Your task to perform on an android device: open app "Messenger Lite" (install if not already installed) and go to login screen Image 0: 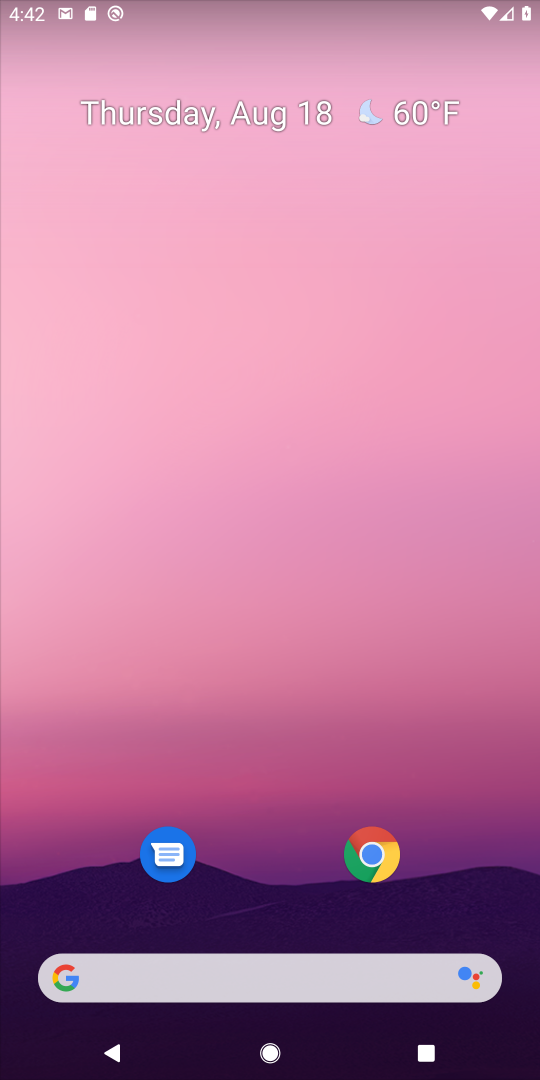
Step 0: click (307, 30)
Your task to perform on an android device: open app "Messenger Lite" (install if not already installed) and go to login screen Image 1: 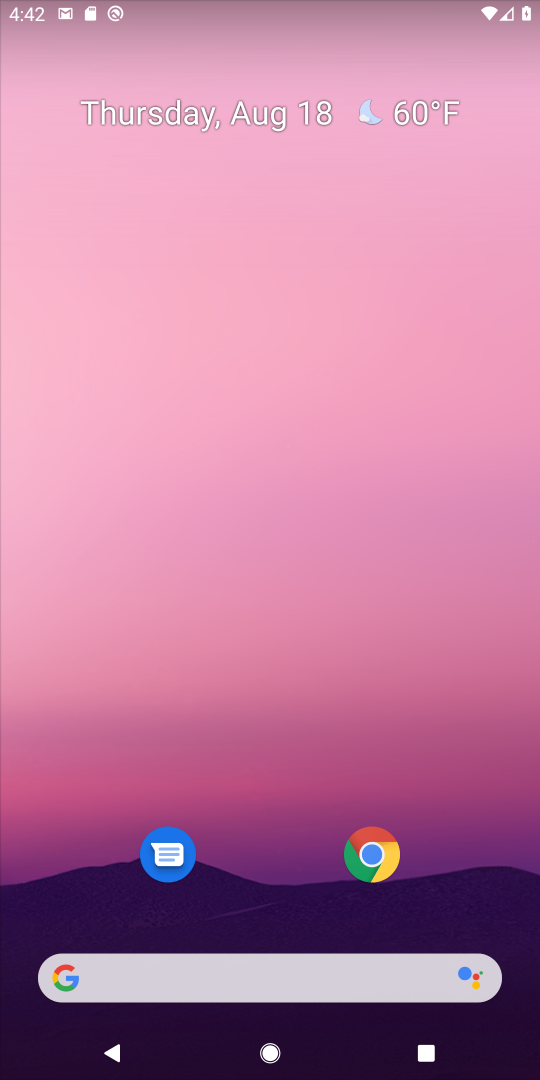
Step 1: drag from (338, 176) to (338, 69)
Your task to perform on an android device: open app "Messenger Lite" (install if not already installed) and go to login screen Image 2: 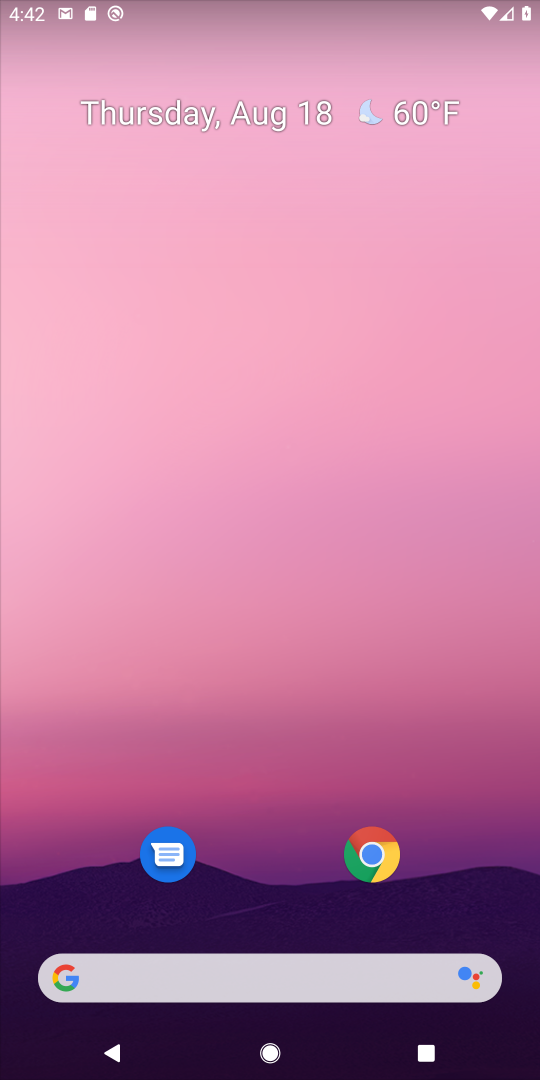
Step 2: drag from (257, 908) to (318, 119)
Your task to perform on an android device: open app "Messenger Lite" (install if not already installed) and go to login screen Image 3: 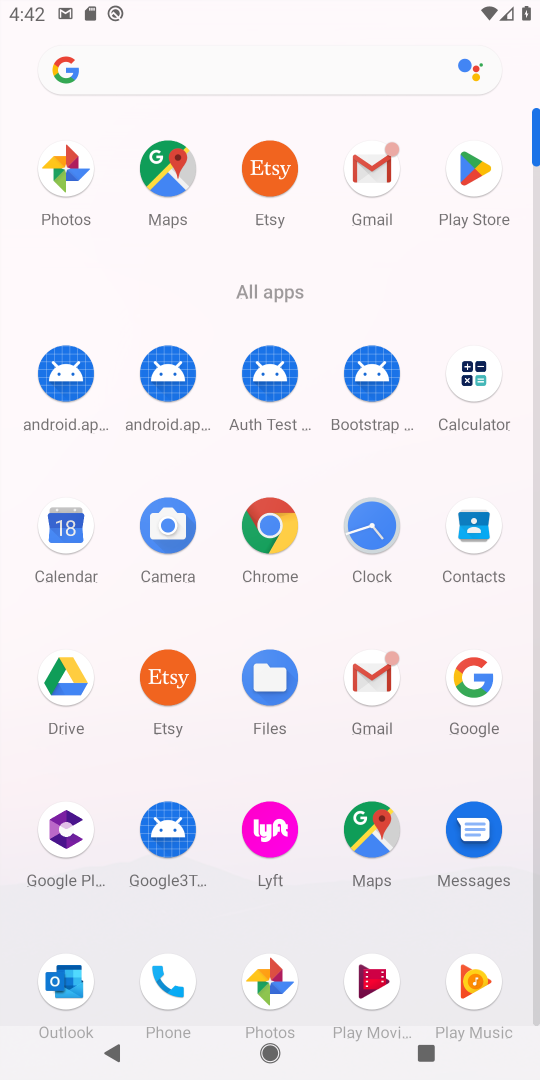
Step 3: click (469, 184)
Your task to perform on an android device: open app "Messenger Lite" (install if not already installed) and go to login screen Image 4: 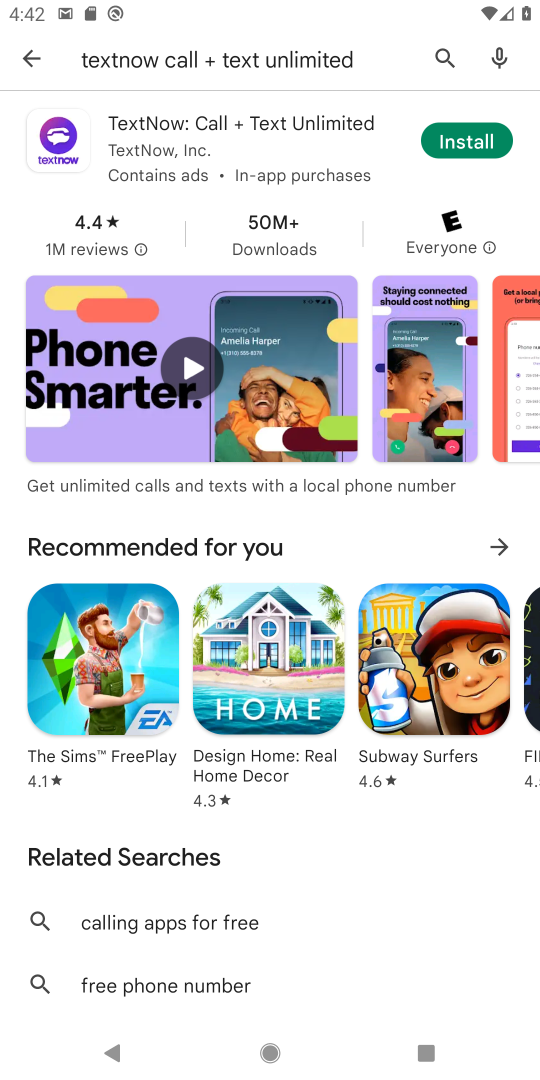
Step 4: click (27, 57)
Your task to perform on an android device: open app "Messenger Lite" (install if not already installed) and go to login screen Image 5: 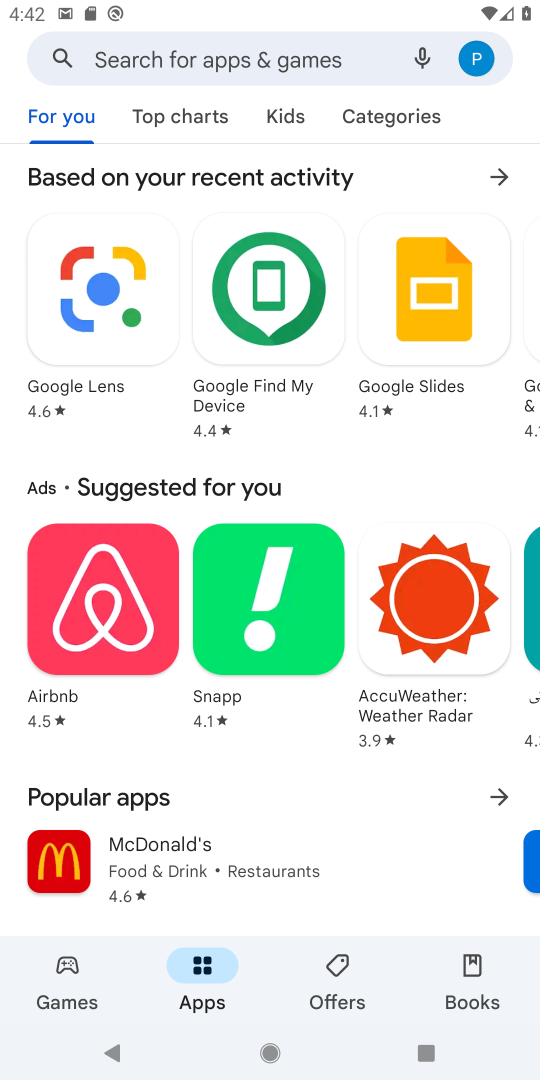
Step 5: click (187, 40)
Your task to perform on an android device: open app "Messenger Lite" (install if not already installed) and go to login screen Image 6: 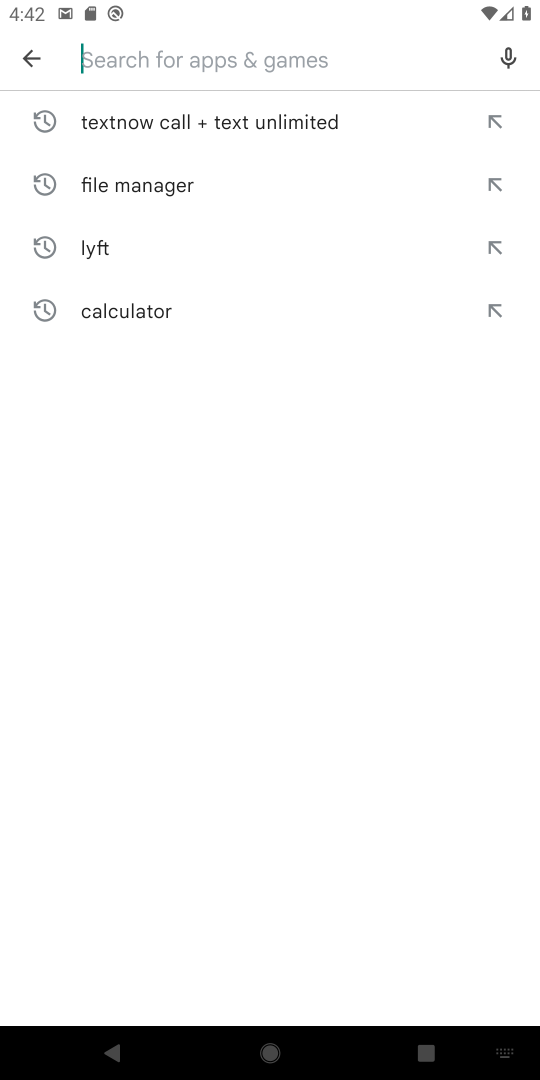
Step 6: type "Messenger Lite"
Your task to perform on an android device: open app "Messenger Lite" (install if not already installed) and go to login screen Image 7: 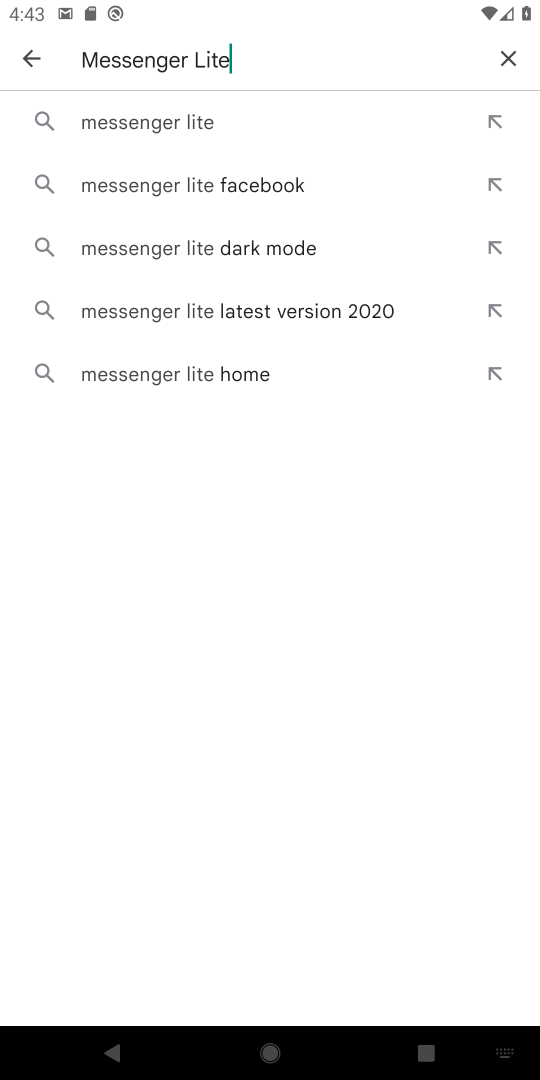
Step 7: click (193, 114)
Your task to perform on an android device: open app "Messenger Lite" (install if not already installed) and go to login screen Image 8: 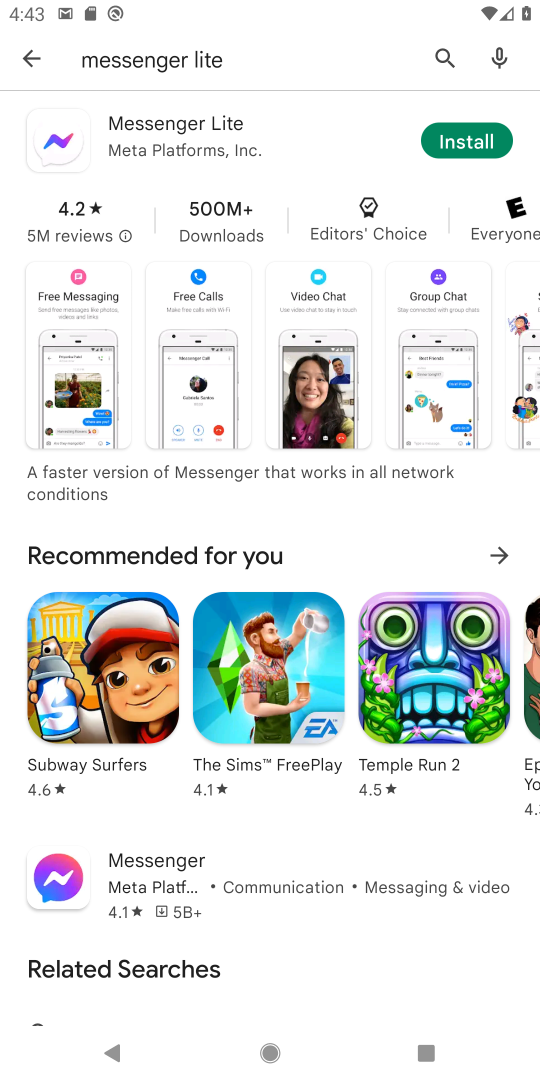
Step 8: click (469, 150)
Your task to perform on an android device: open app "Messenger Lite" (install if not already installed) and go to login screen Image 9: 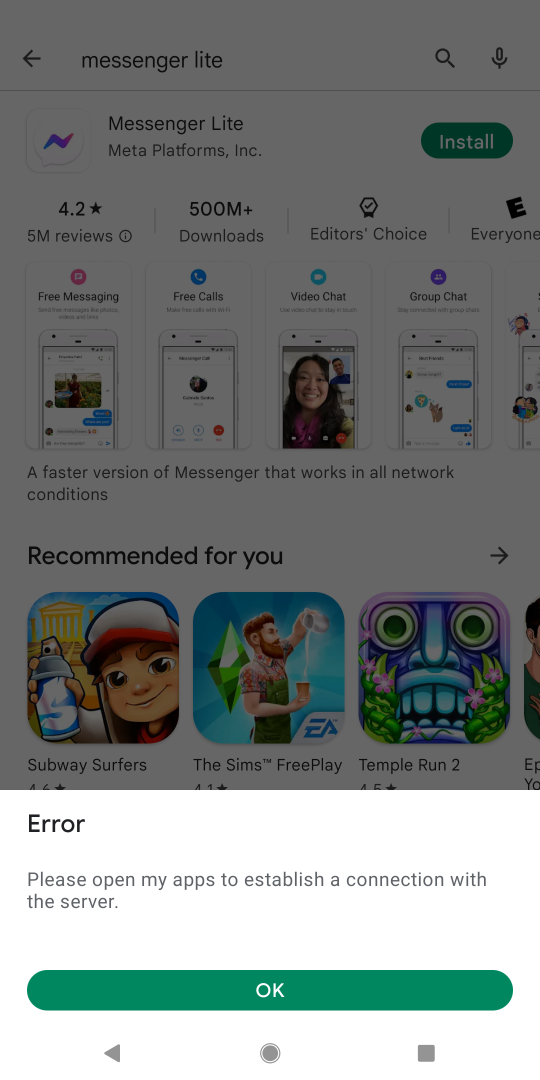
Step 9: click (278, 995)
Your task to perform on an android device: open app "Messenger Lite" (install if not already installed) and go to login screen Image 10: 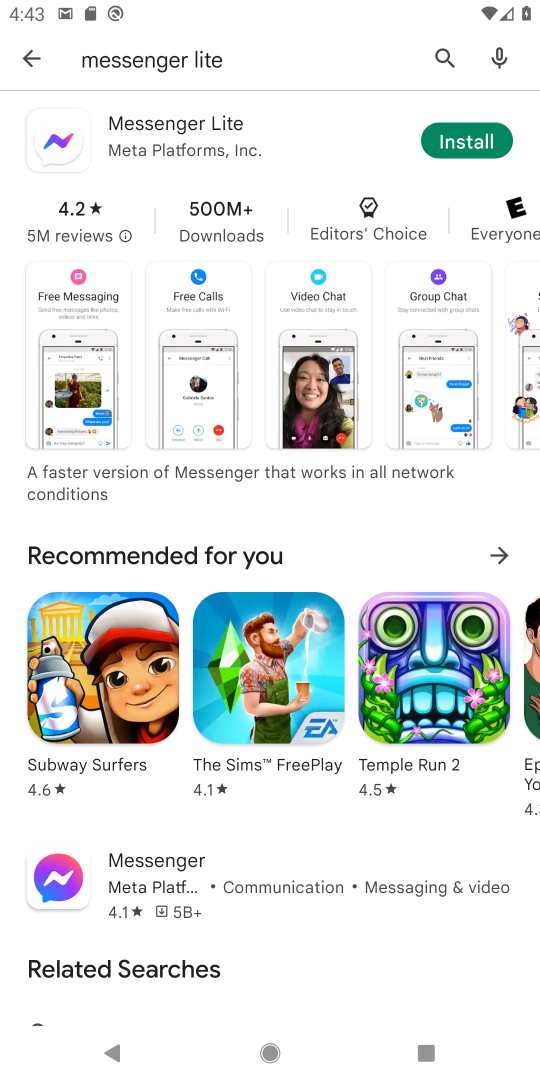
Step 10: click (461, 138)
Your task to perform on an android device: open app "Messenger Lite" (install if not already installed) and go to login screen Image 11: 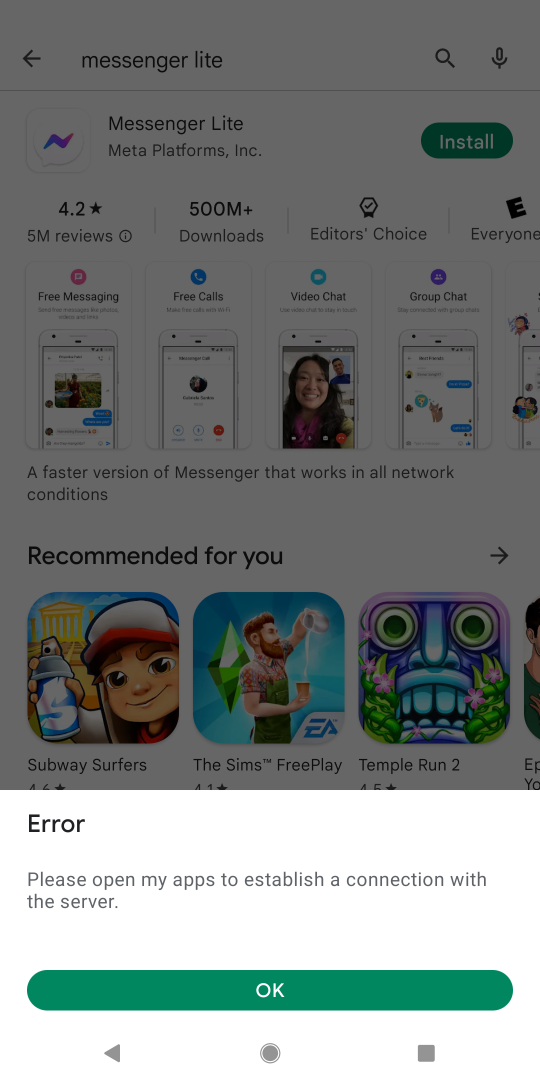
Step 11: task complete